Your task to perform on an android device: toggle priority inbox in the gmail app Image 0: 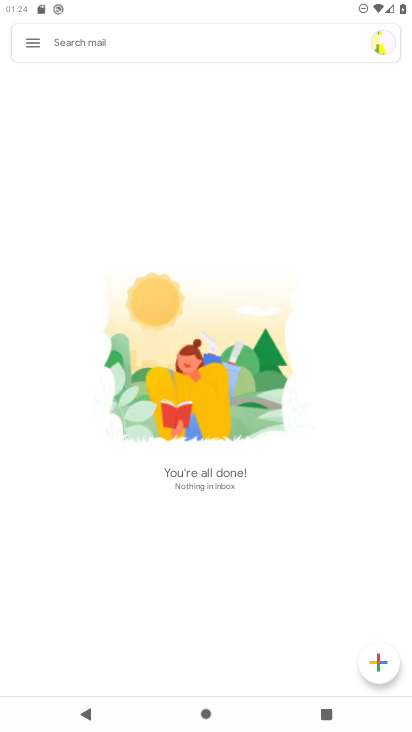
Step 0: click (18, 46)
Your task to perform on an android device: toggle priority inbox in the gmail app Image 1: 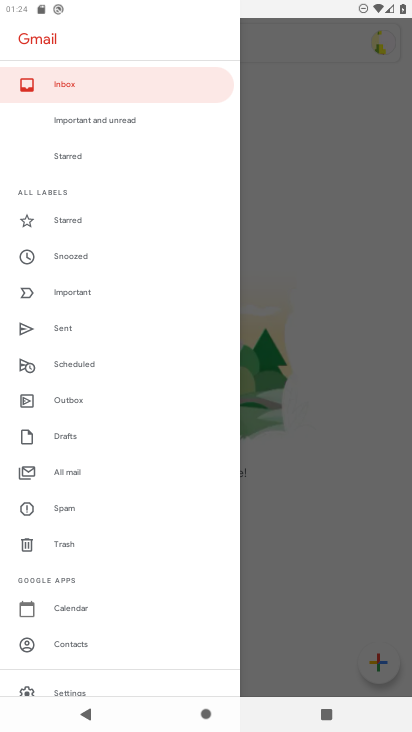
Step 1: click (76, 689)
Your task to perform on an android device: toggle priority inbox in the gmail app Image 2: 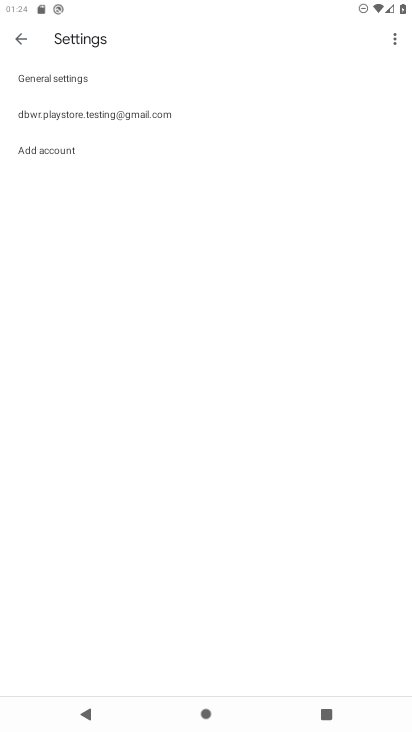
Step 2: click (116, 111)
Your task to perform on an android device: toggle priority inbox in the gmail app Image 3: 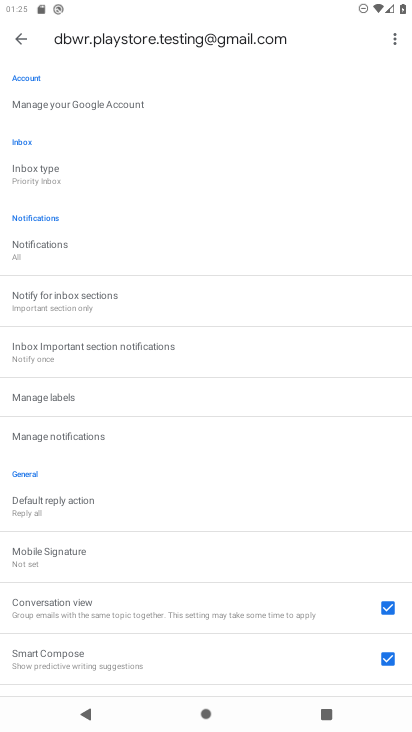
Step 3: click (117, 256)
Your task to perform on an android device: toggle priority inbox in the gmail app Image 4: 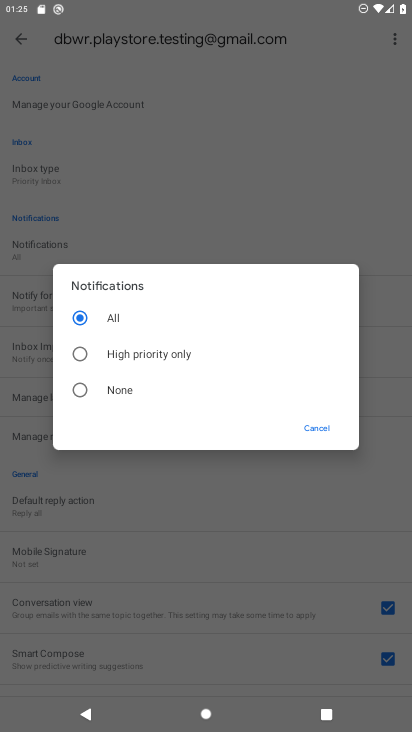
Step 4: click (130, 390)
Your task to perform on an android device: toggle priority inbox in the gmail app Image 5: 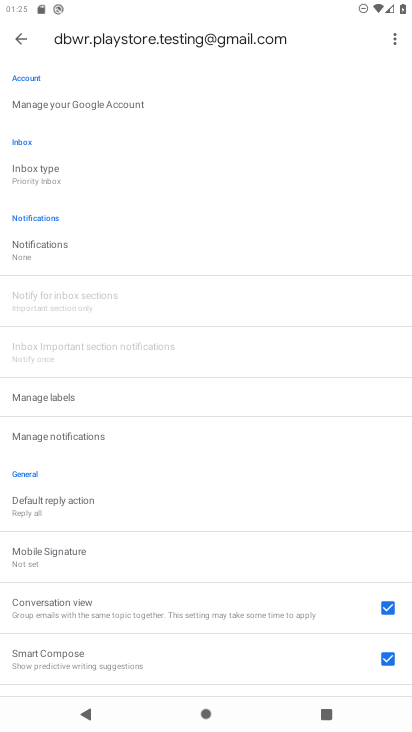
Step 5: task complete